Your task to perform on an android device: Add logitech g933 to the cart on amazon.com Image 0: 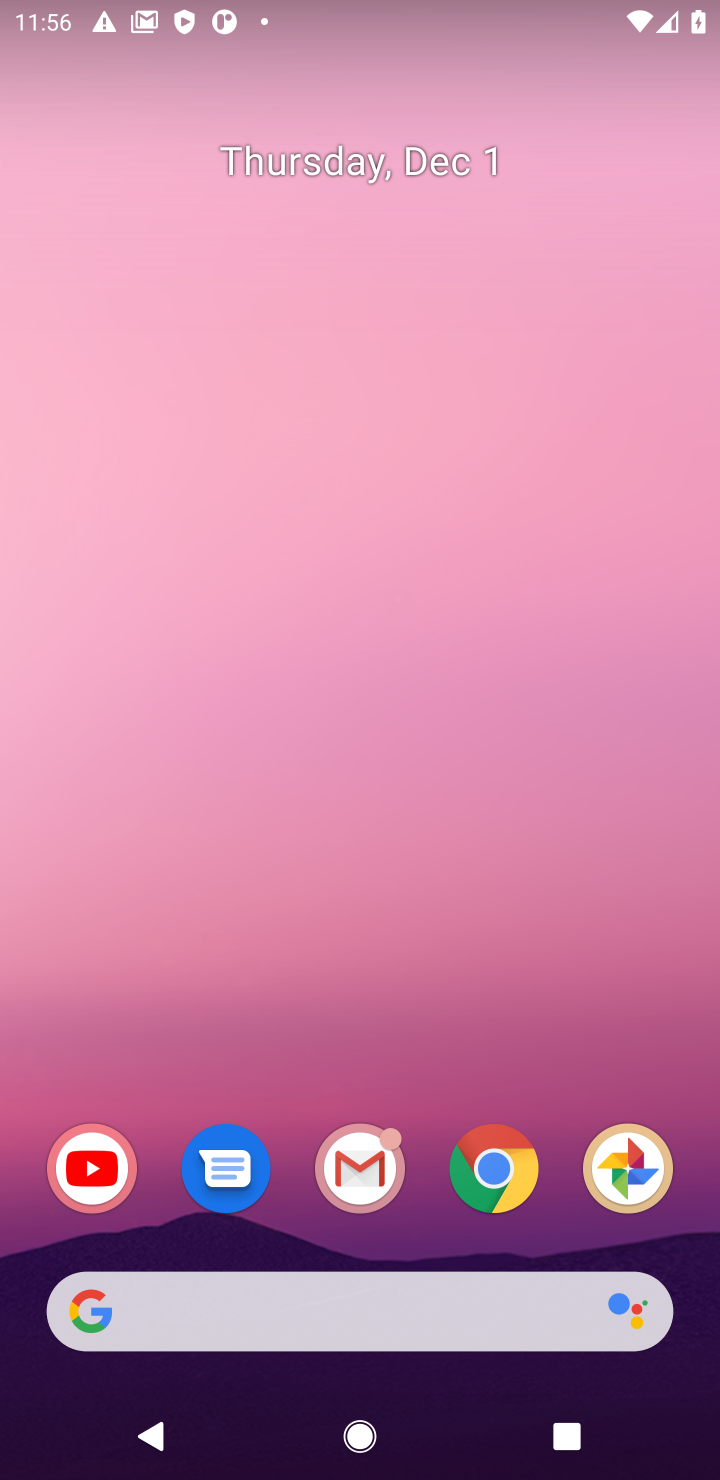
Step 0: click (488, 1174)
Your task to perform on an android device: Add logitech g933 to the cart on amazon.com Image 1: 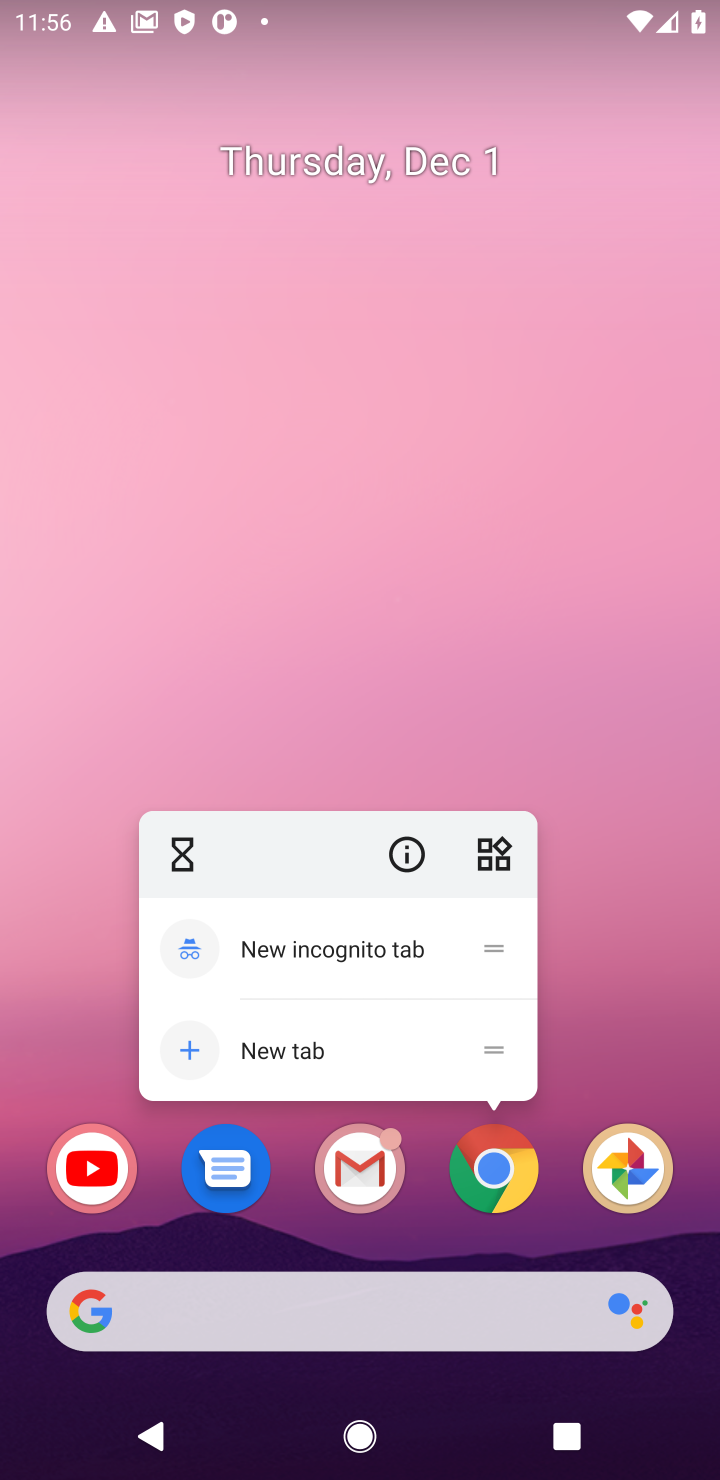
Step 1: click (488, 1174)
Your task to perform on an android device: Add logitech g933 to the cart on amazon.com Image 2: 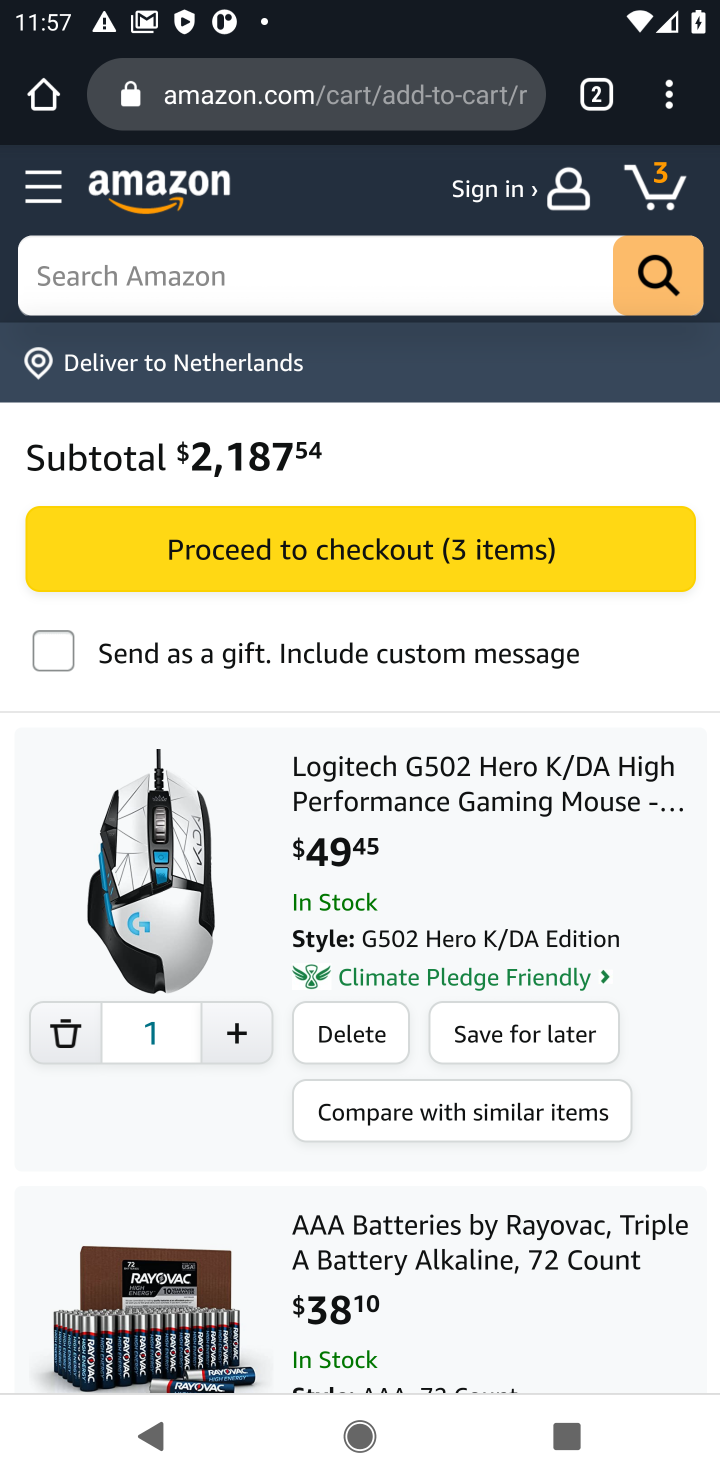
Step 2: click (206, 290)
Your task to perform on an android device: Add logitech g933 to the cart on amazon.com Image 3: 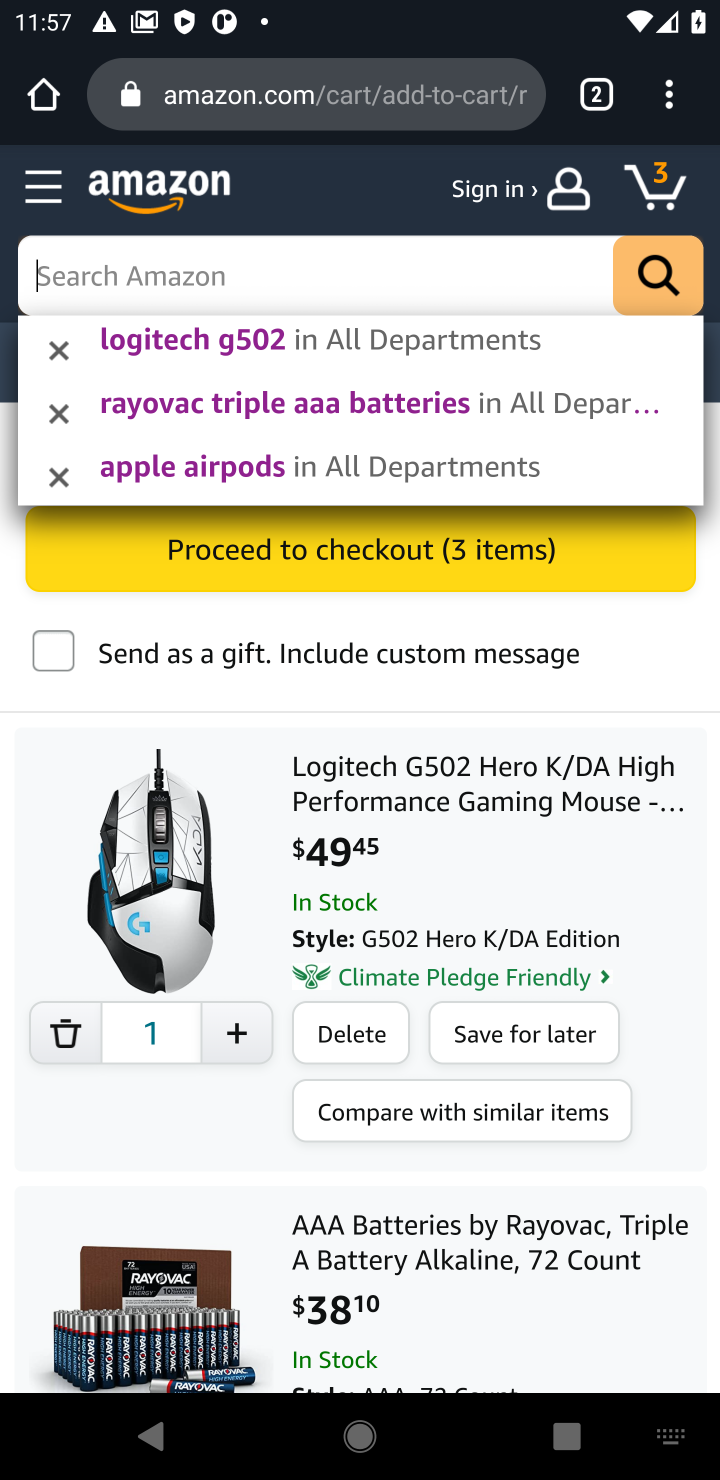
Step 3: type " logitech g933"
Your task to perform on an android device: Add logitech g933 to the cart on amazon.com Image 4: 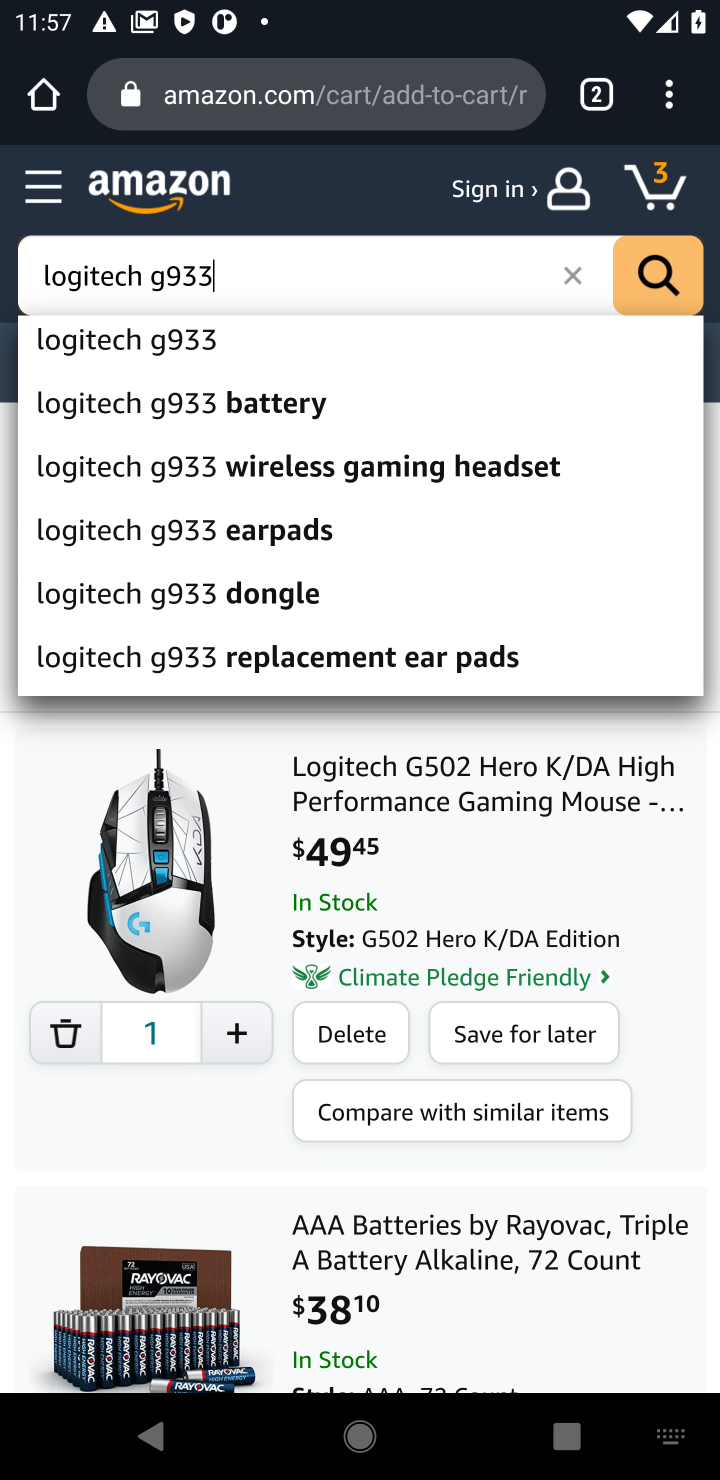
Step 4: click (148, 349)
Your task to perform on an android device: Add logitech g933 to the cart on amazon.com Image 5: 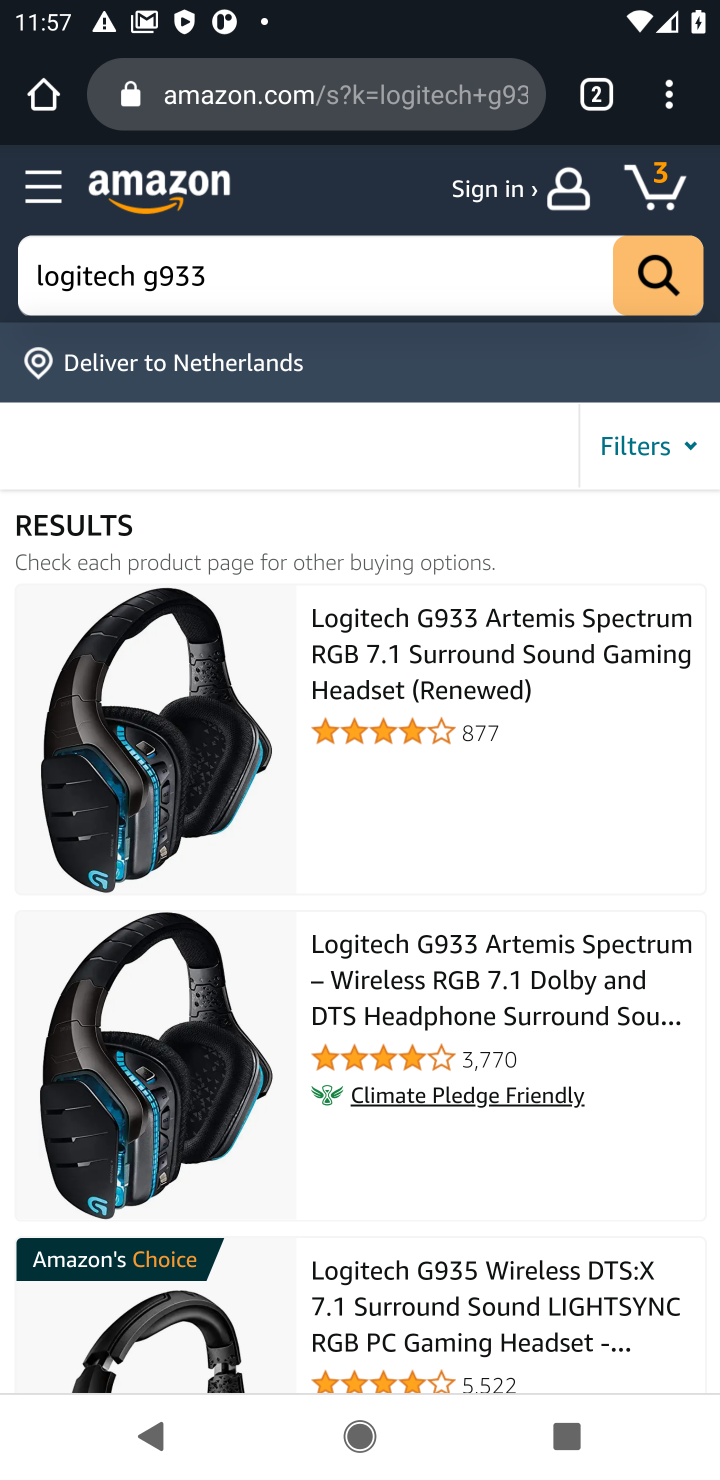
Step 5: drag from (266, 897) to (262, 643)
Your task to perform on an android device: Add logitech g933 to the cart on amazon.com Image 6: 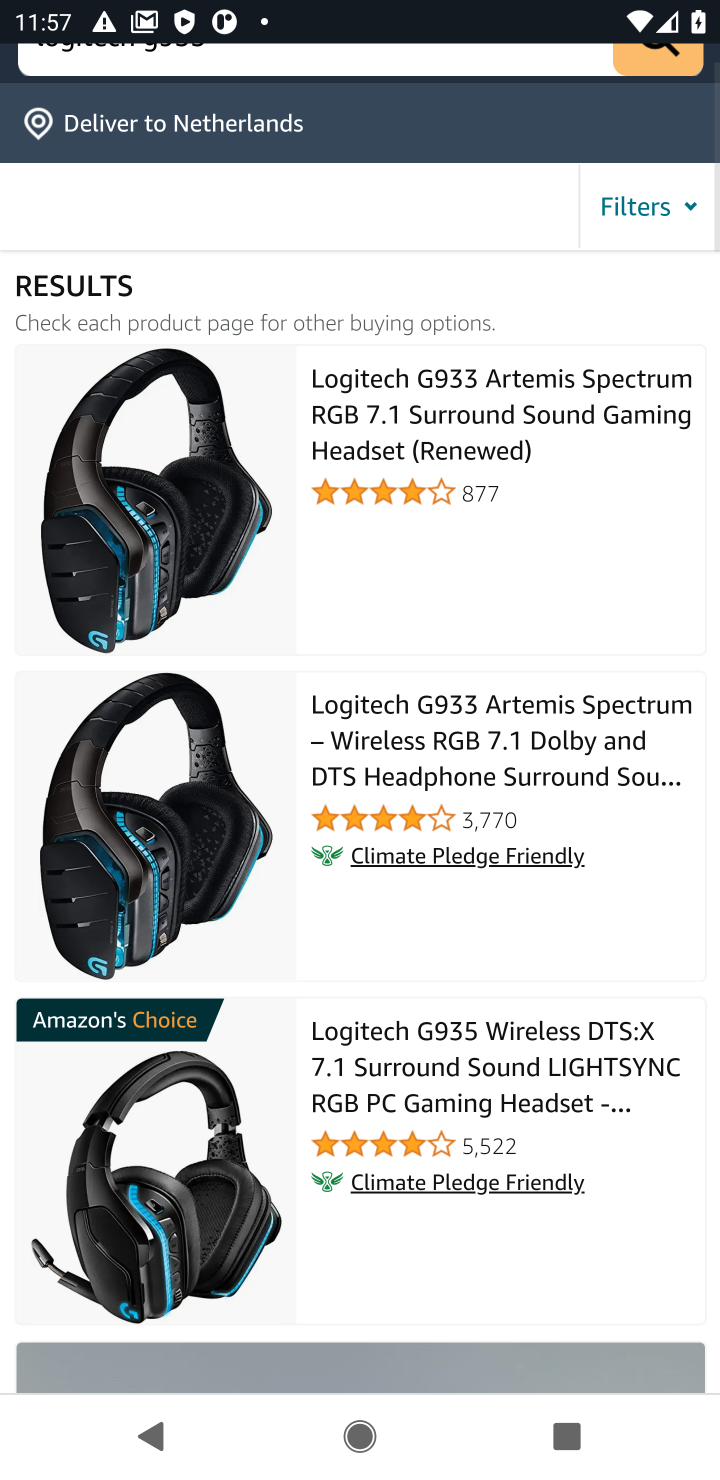
Step 6: drag from (286, 949) to (276, 474)
Your task to perform on an android device: Add logitech g933 to the cart on amazon.com Image 7: 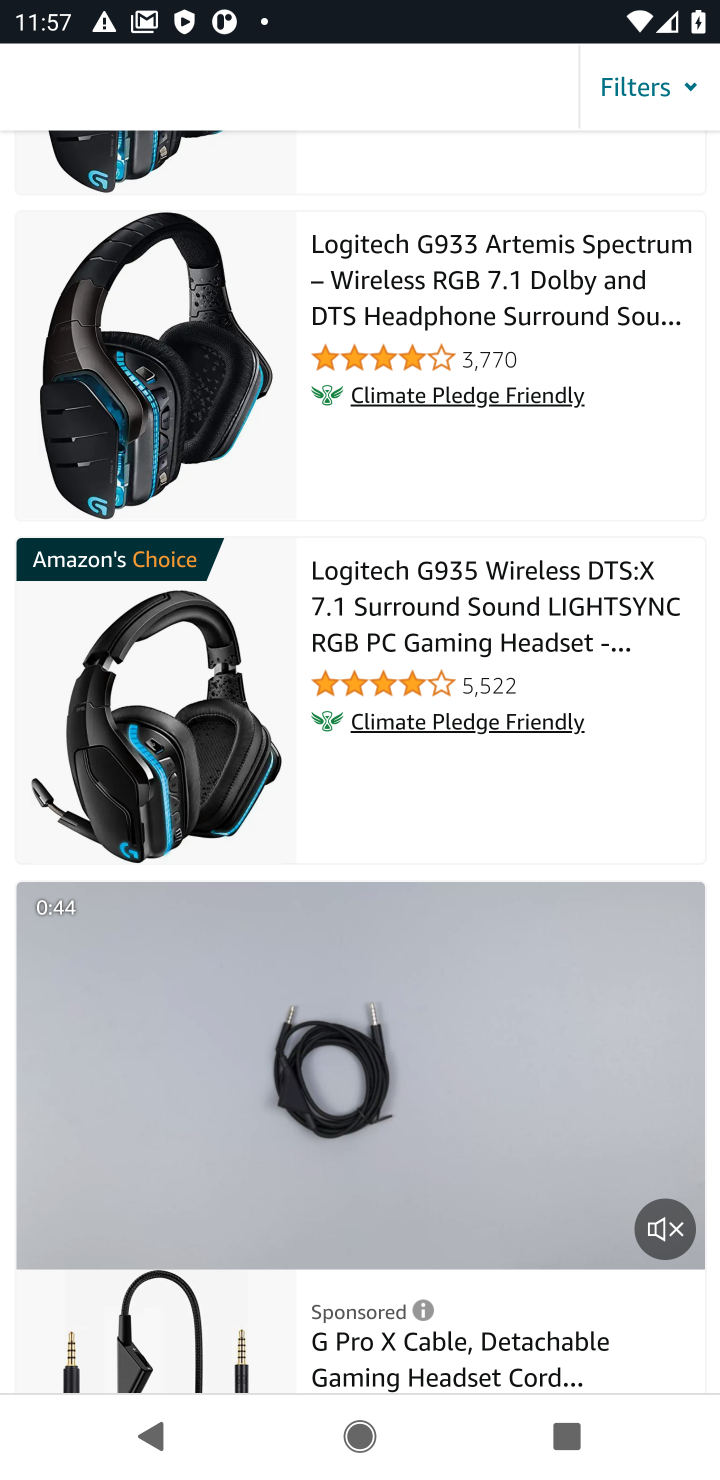
Step 7: drag from (264, 729) to (258, 354)
Your task to perform on an android device: Add logitech g933 to the cart on amazon.com Image 8: 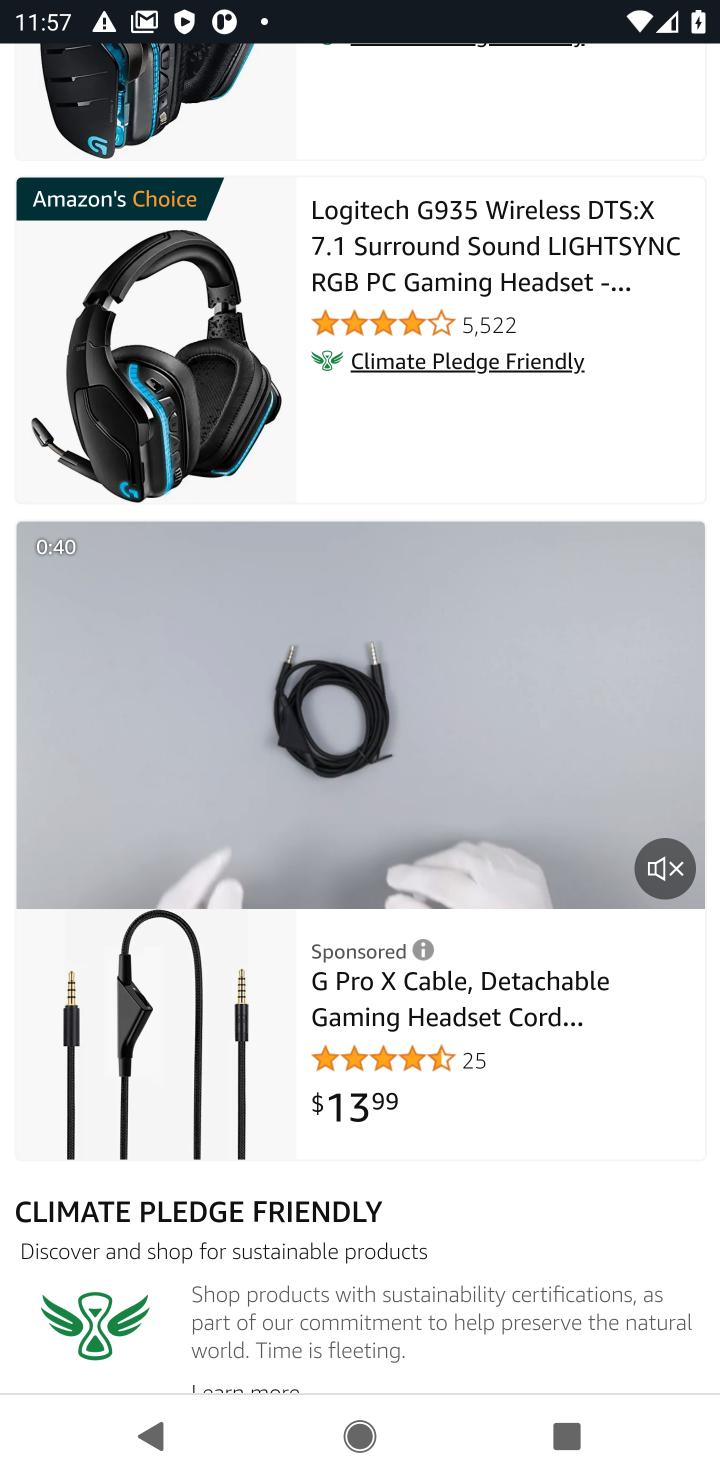
Step 8: drag from (249, 859) to (249, 377)
Your task to perform on an android device: Add logitech g933 to the cart on amazon.com Image 9: 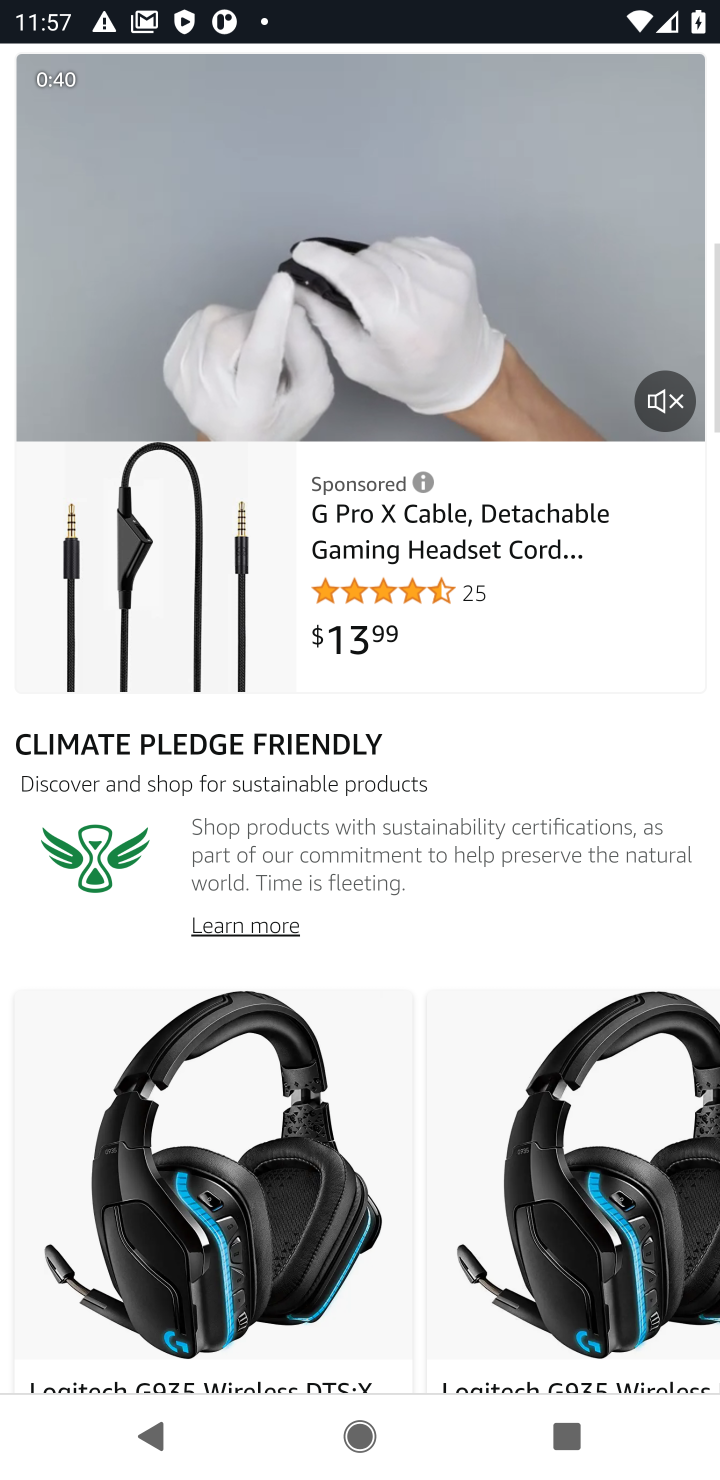
Step 9: click (247, 567)
Your task to perform on an android device: Add logitech g933 to the cart on amazon.com Image 10: 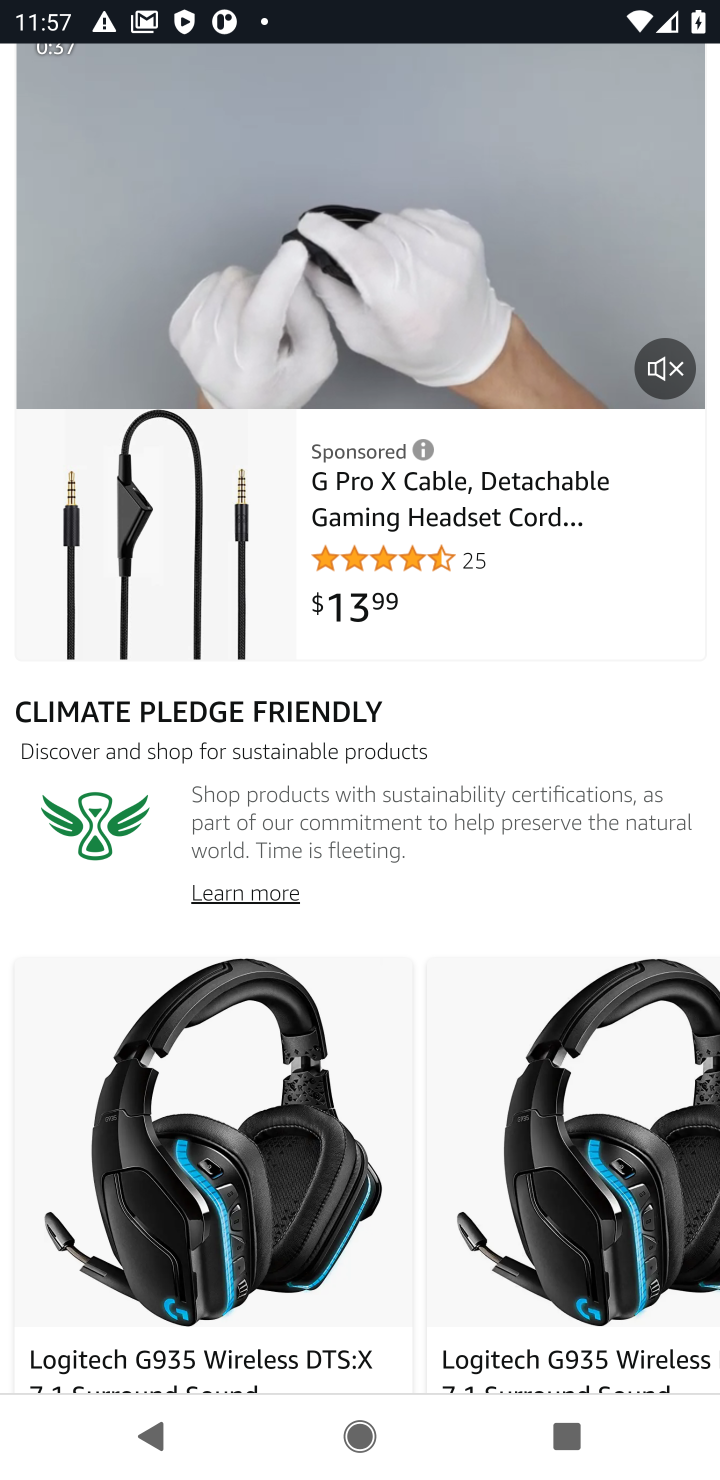
Step 10: drag from (259, 762) to (242, 528)
Your task to perform on an android device: Add logitech g933 to the cart on amazon.com Image 11: 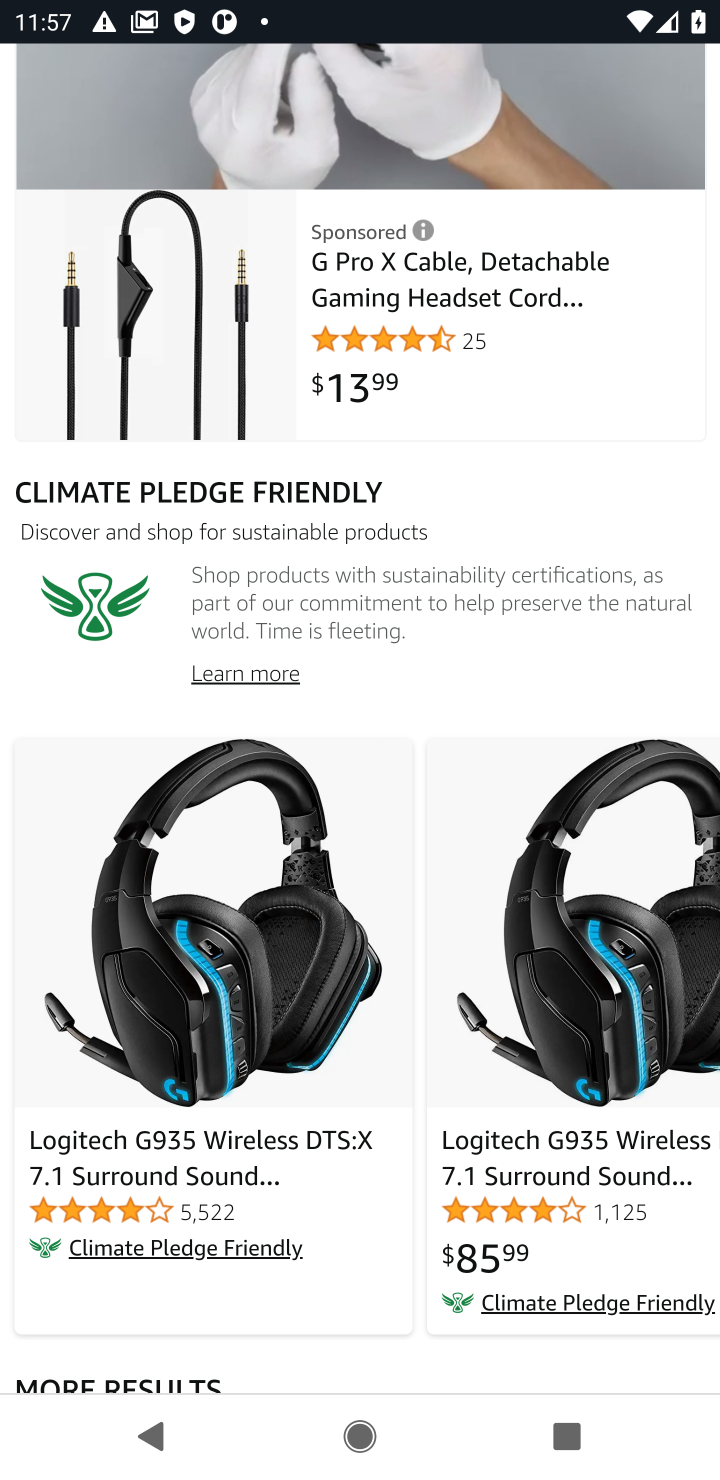
Step 11: drag from (236, 896) to (233, 596)
Your task to perform on an android device: Add logitech g933 to the cart on amazon.com Image 12: 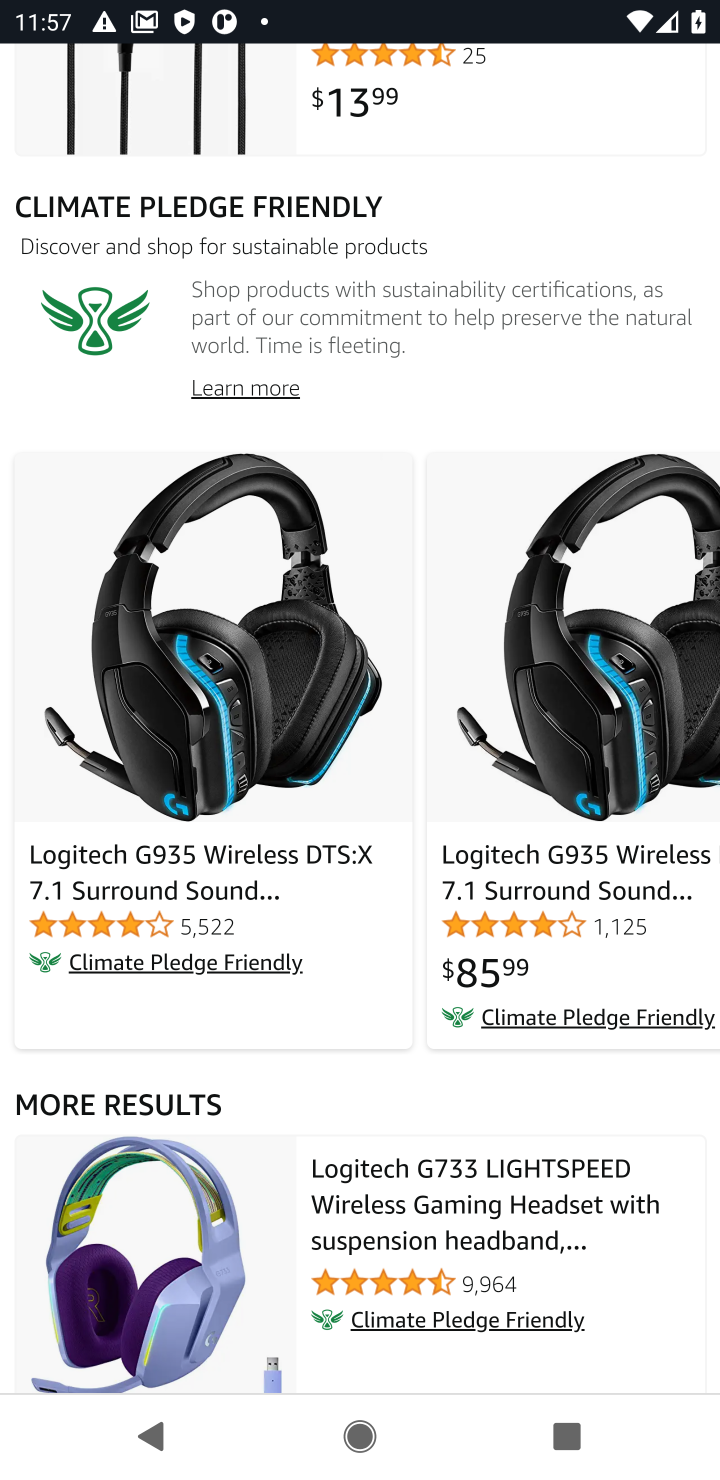
Step 12: drag from (286, 901) to (307, 609)
Your task to perform on an android device: Add logitech g933 to the cart on amazon.com Image 13: 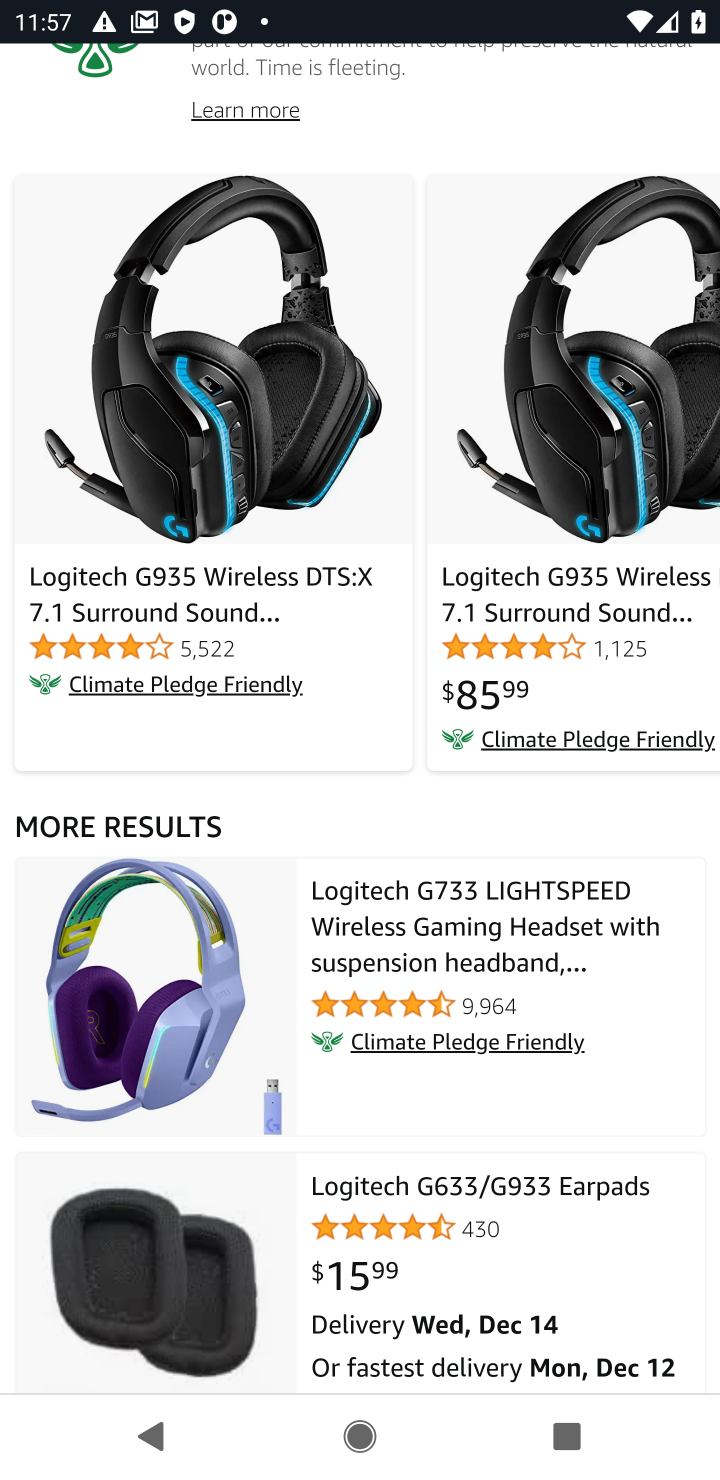
Step 13: drag from (245, 938) to (238, 840)
Your task to perform on an android device: Add logitech g933 to the cart on amazon.com Image 14: 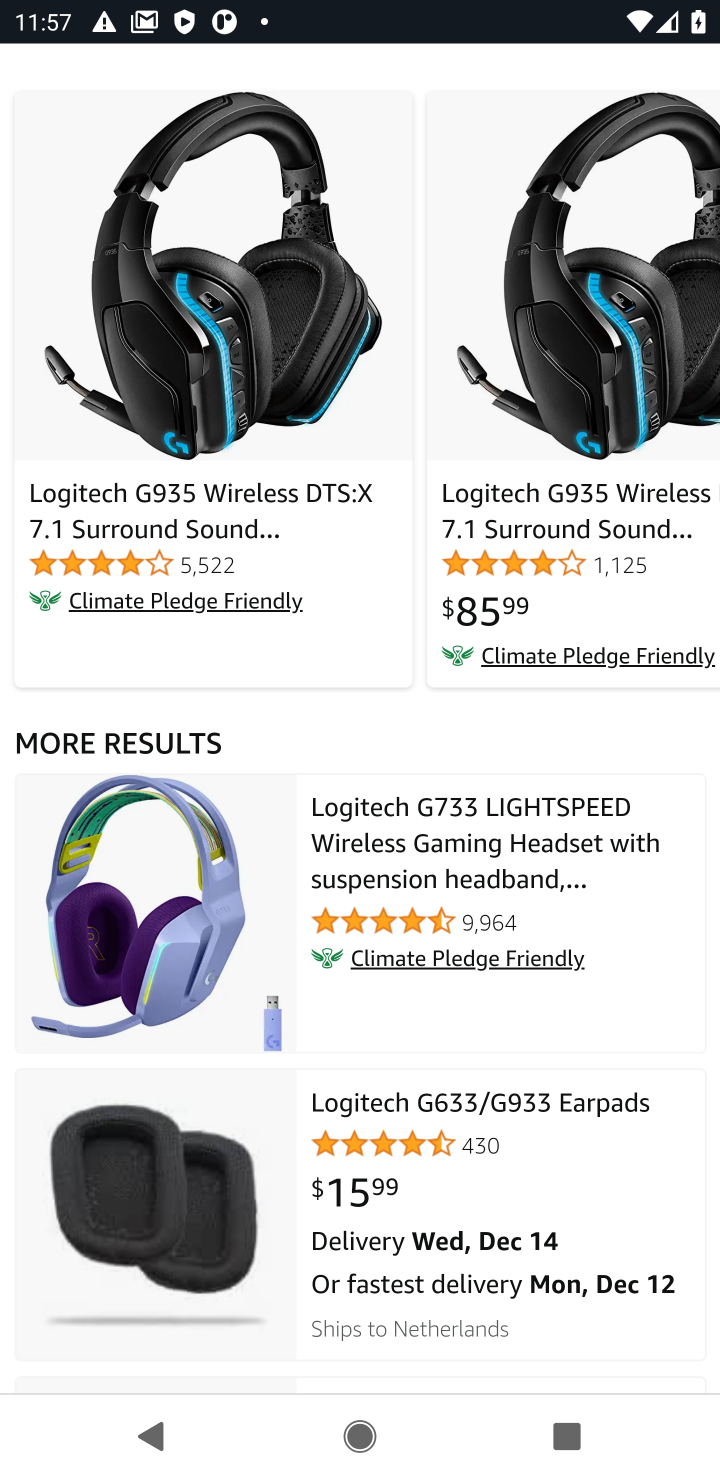
Step 14: click (153, 1166)
Your task to perform on an android device: Add logitech g933 to the cart on amazon.com Image 15: 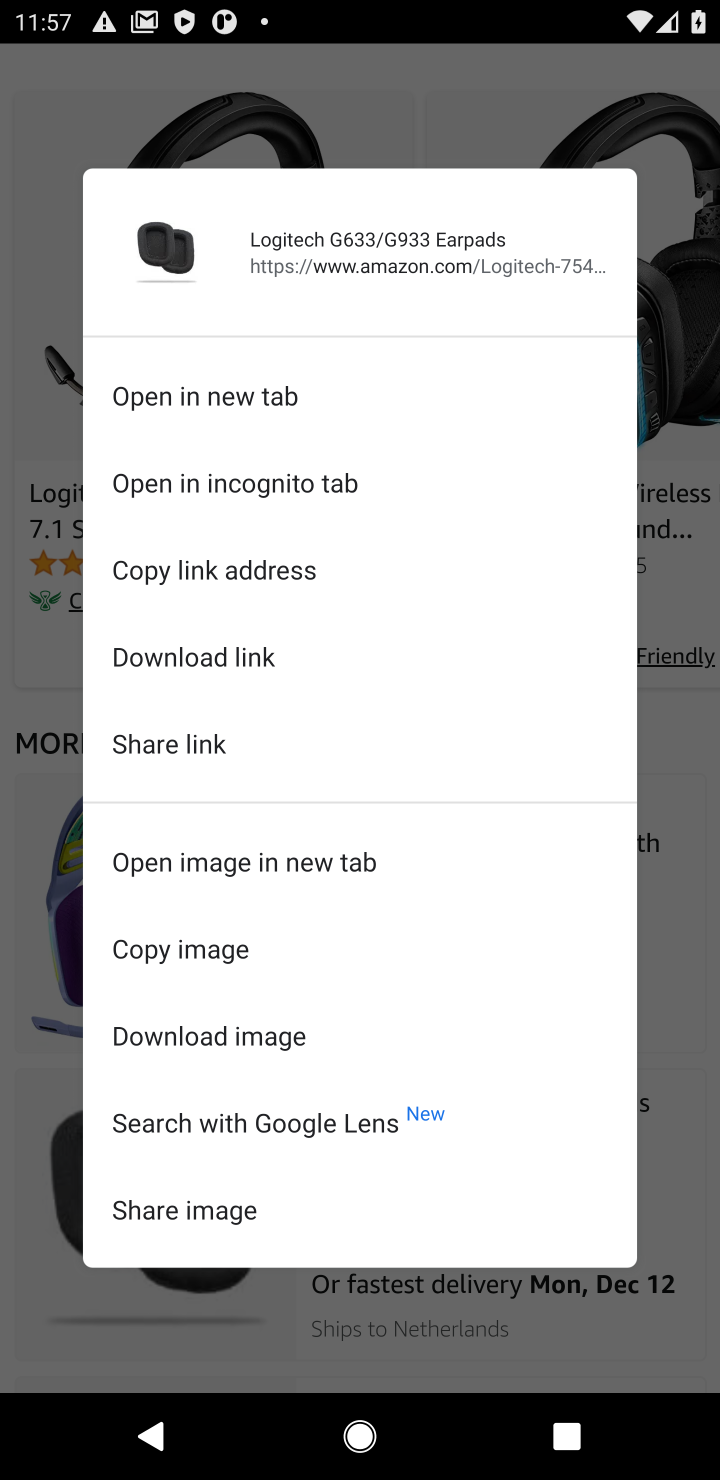
Step 15: click (61, 1192)
Your task to perform on an android device: Add logitech g933 to the cart on amazon.com Image 16: 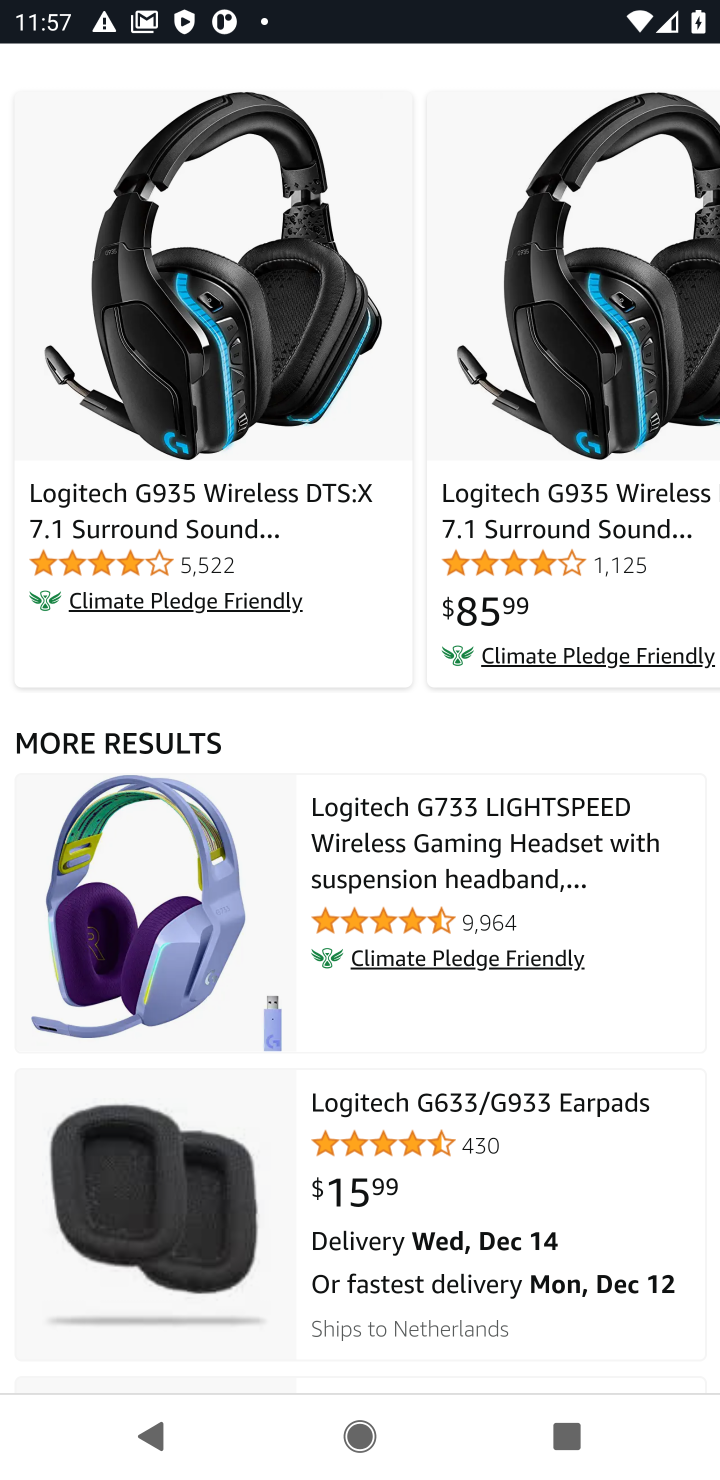
Step 16: click (141, 1218)
Your task to perform on an android device: Add logitech g933 to the cart on amazon.com Image 17: 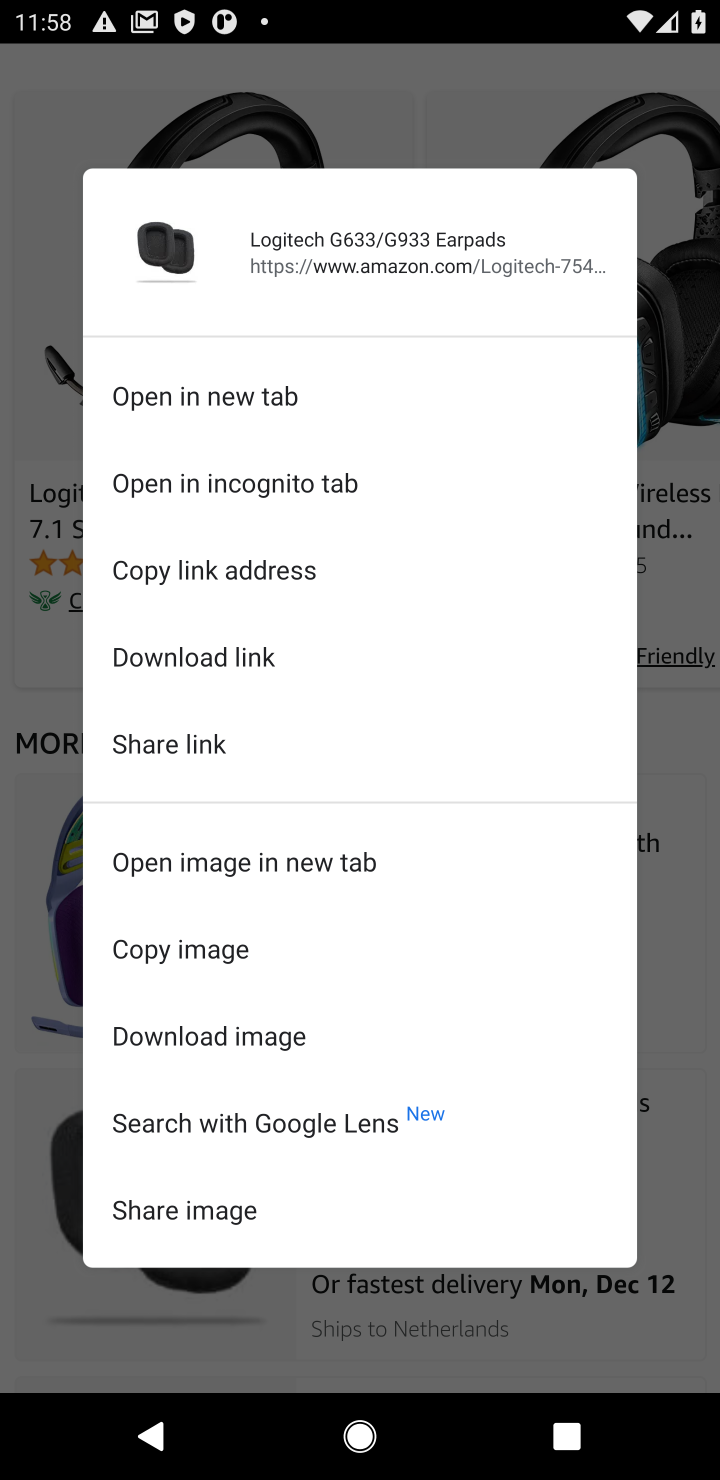
Step 17: click (658, 1184)
Your task to perform on an android device: Add logitech g933 to the cart on amazon.com Image 18: 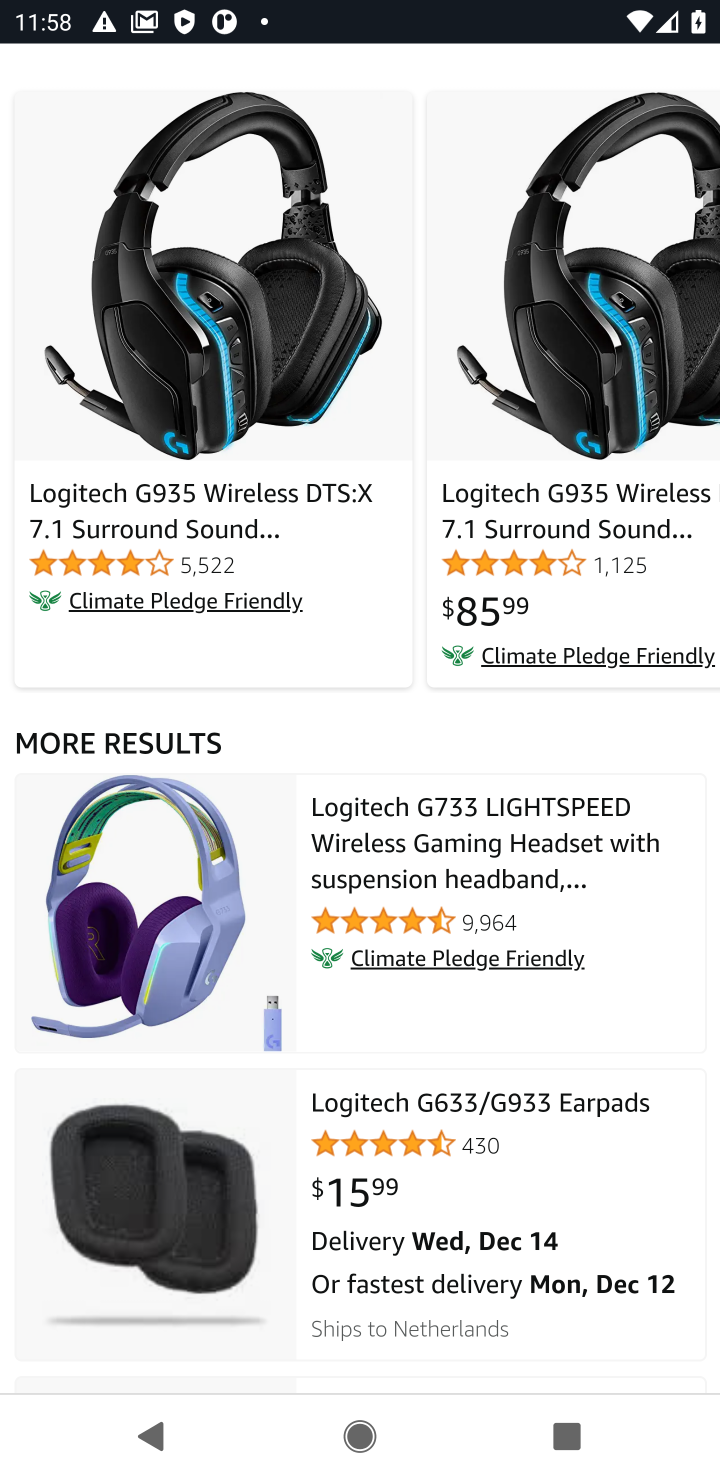
Step 18: click (360, 1106)
Your task to perform on an android device: Add logitech g933 to the cart on amazon.com Image 19: 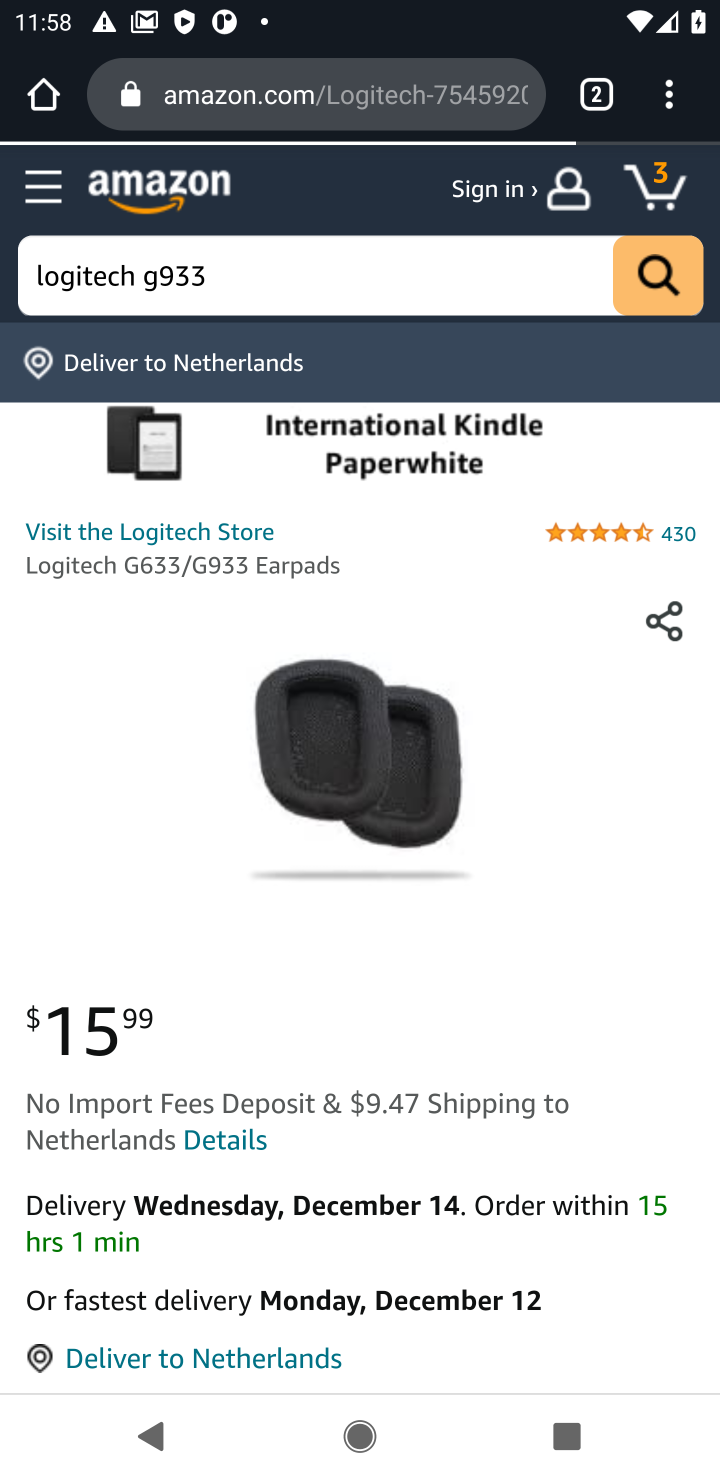
Step 19: drag from (360, 1007) to (333, 535)
Your task to perform on an android device: Add logitech g933 to the cart on amazon.com Image 20: 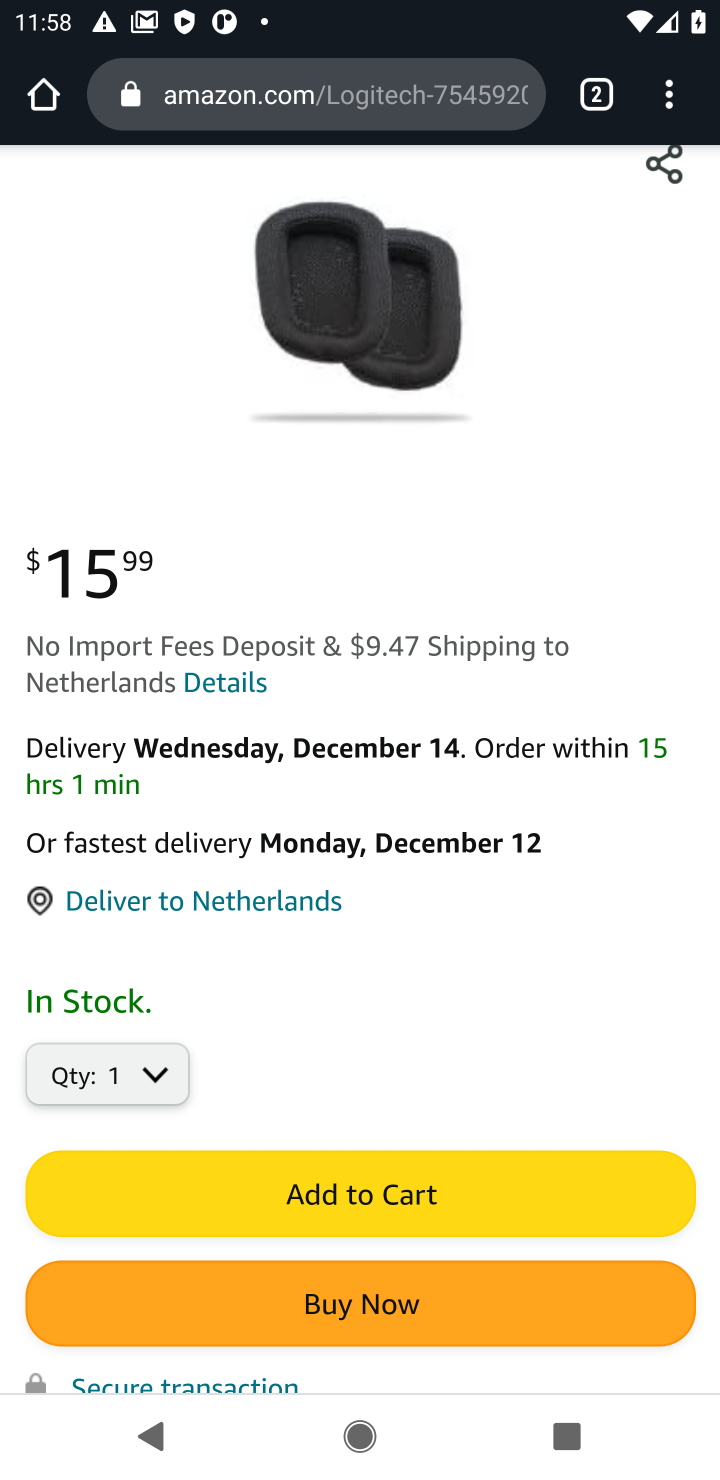
Step 20: click (379, 1187)
Your task to perform on an android device: Add logitech g933 to the cart on amazon.com Image 21: 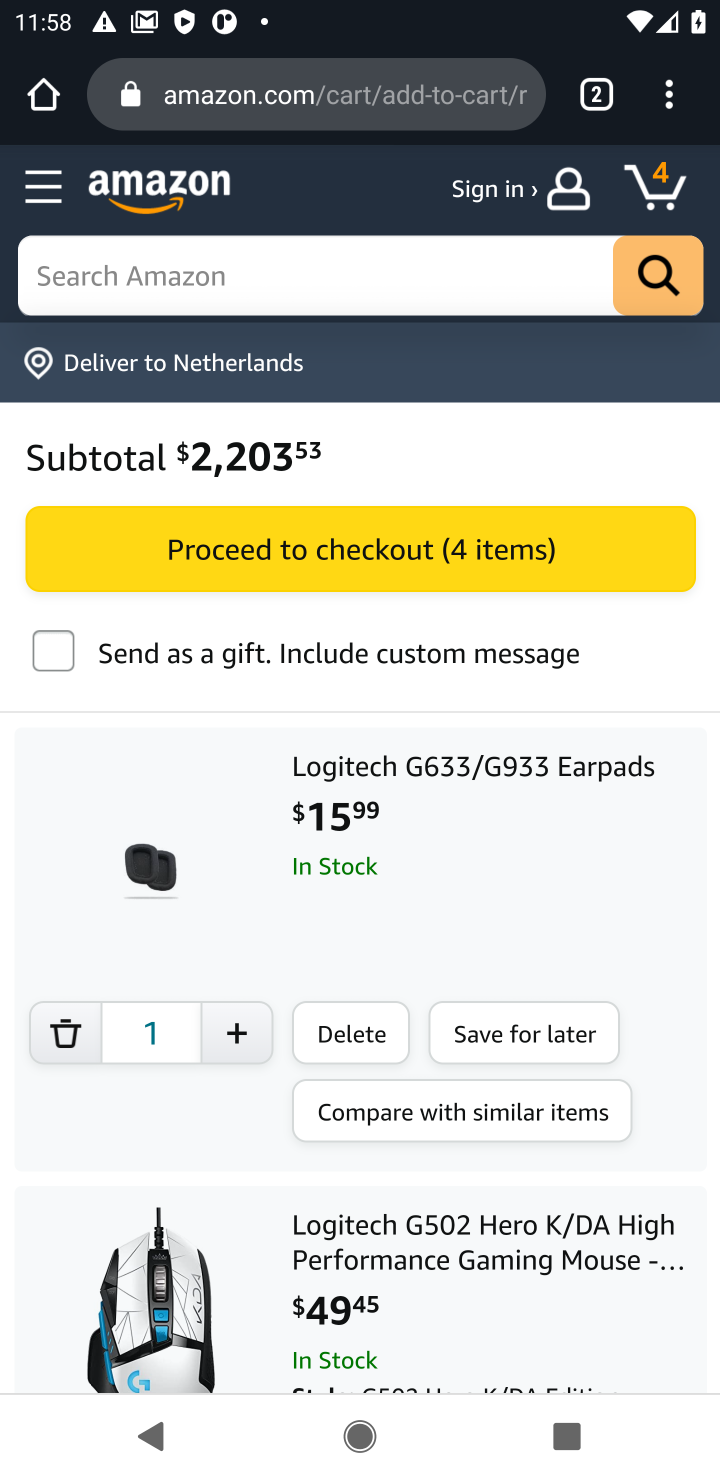
Step 21: task complete